Your task to perform on an android device: Search for pizza restaurants on Maps Image 0: 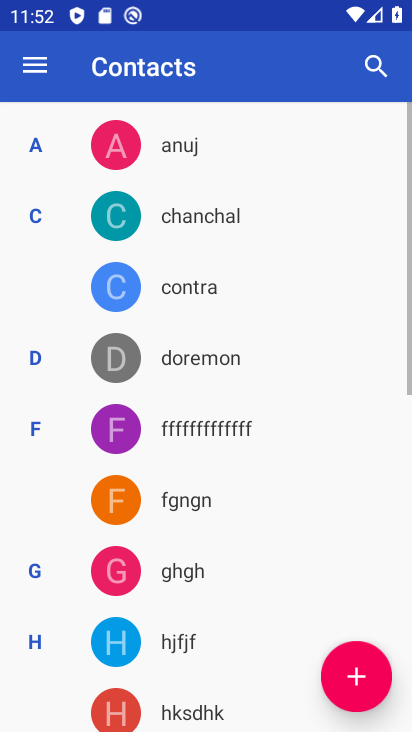
Step 0: press home button
Your task to perform on an android device: Search for pizza restaurants on Maps Image 1: 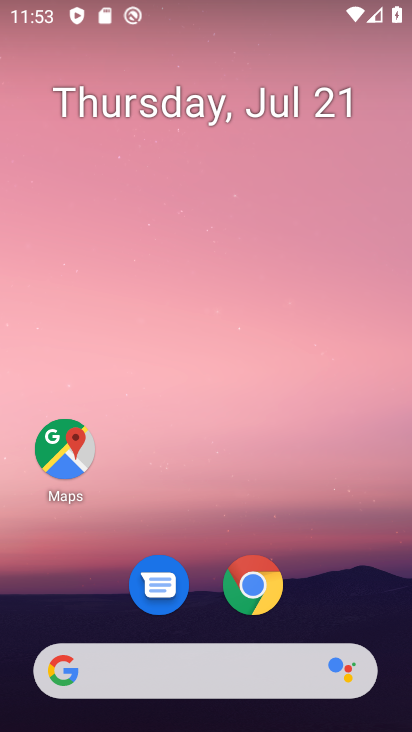
Step 1: click (63, 456)
Your task to perform on an android device: Search for pizza restaurants on Maps Image 2: 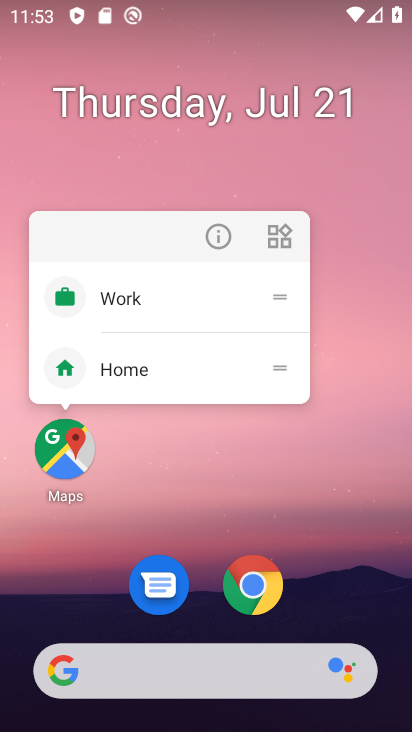
Step 2: click (65, 451)
Your task to perform on an android device: Search for pizza restaurants on Maps Image 3: 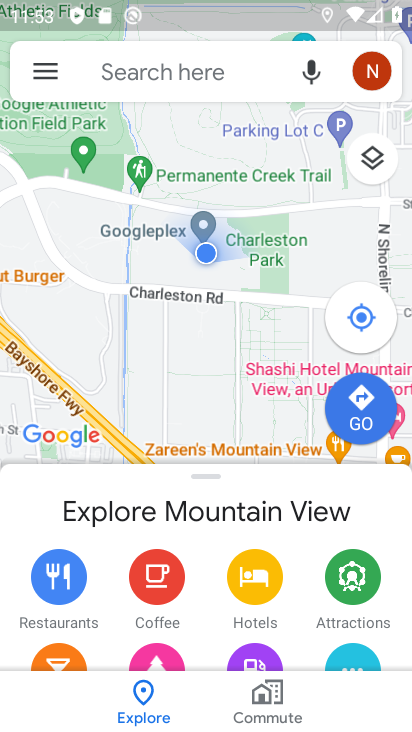
Step 3: click (203, 70)
Your task to perform on an android device: Search for pizza restaurants on Maps Image 4: 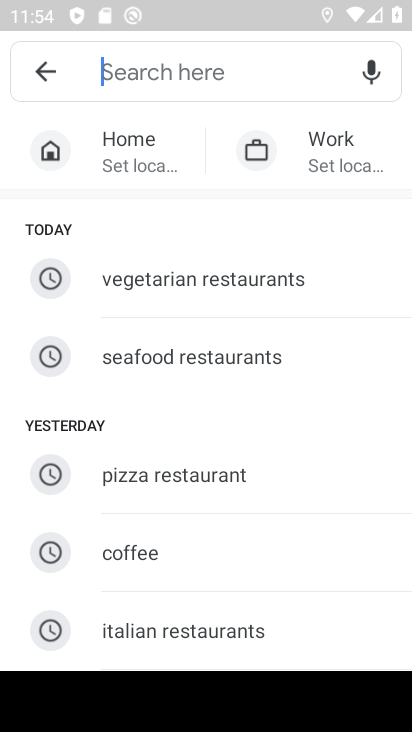
Step 4: click (173, 475)
Your task to perform on an android device: Search for pizza restaurants on Maps Image 5: 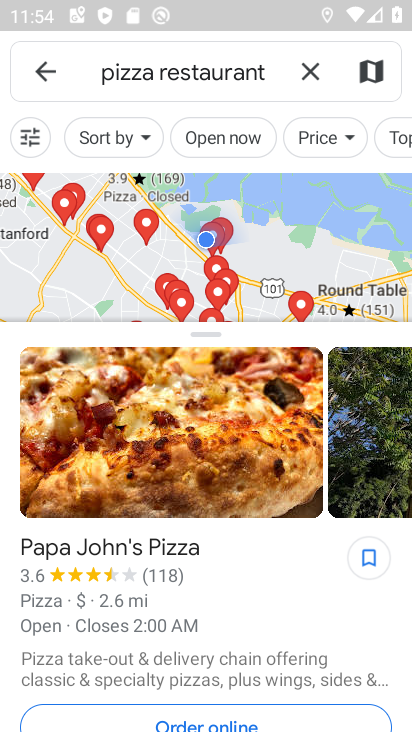
Step 5: task complete